Your task to perform on an android device: Check the weather Image 0: 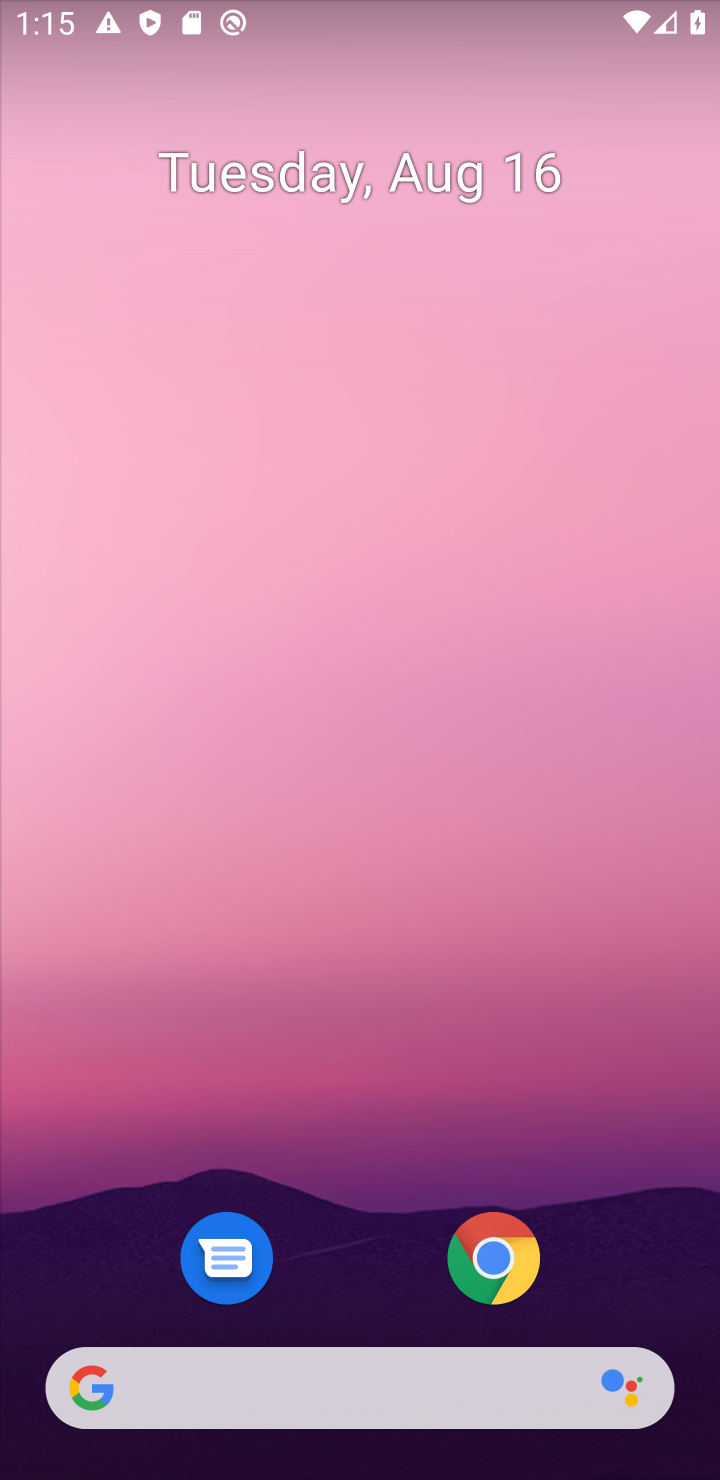
Step 0: task complete